Your task to perform on an android device: move an email to a new category in the gmail app Image 0: 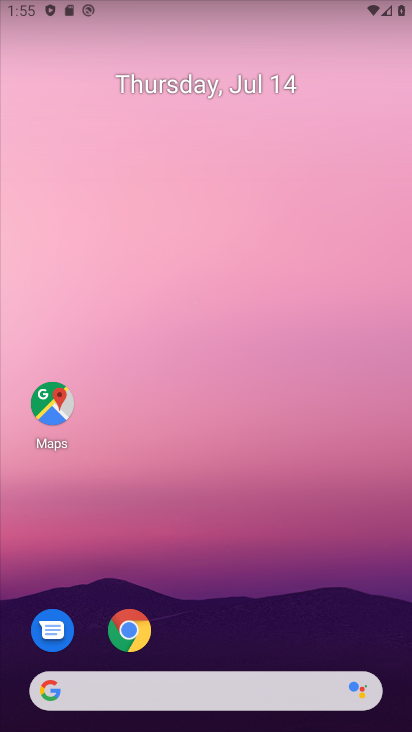
Step 0: press home button
Your task to perform on an android device: move an email to a new category in the gmail app Image 1: 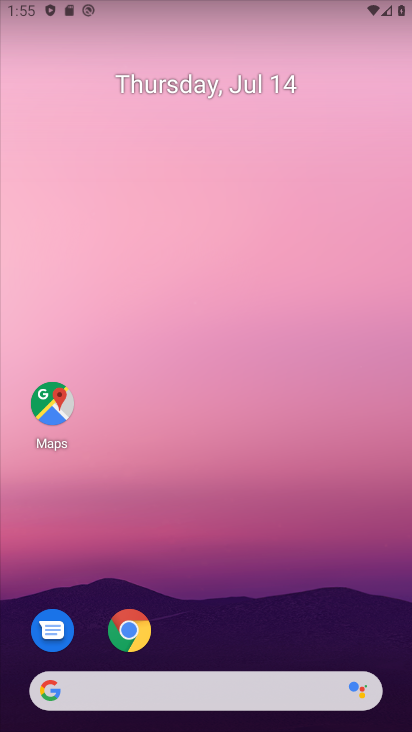
Step 1: drag from (212, 645) to (246, 67)
Your task to perform on an android device: move an email to a new category in the gmail app Image 2: 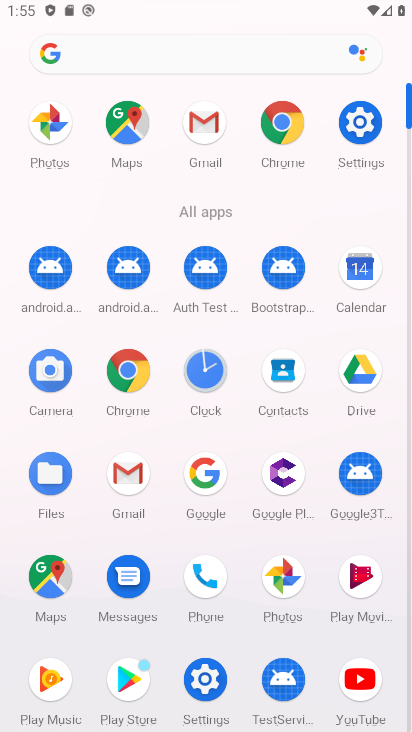
Step 2: click (125, 463)
Your task to perform on an android device: move an email to a new category in the gmail app Image 3: 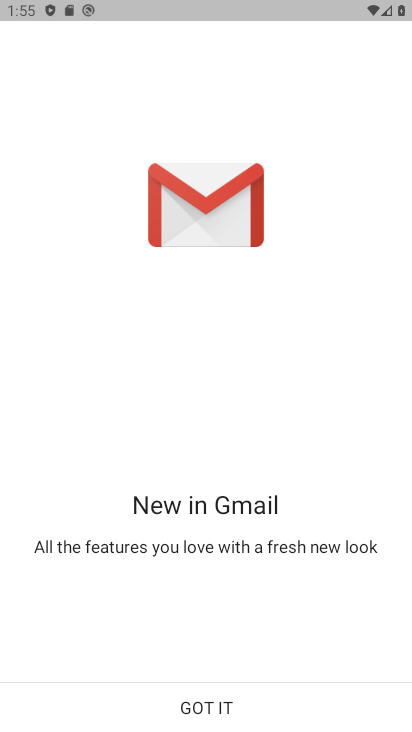
Step 3: click (213, 713)
Your task to perform on an android device: move an email to a new category in the gmail app Image 4: 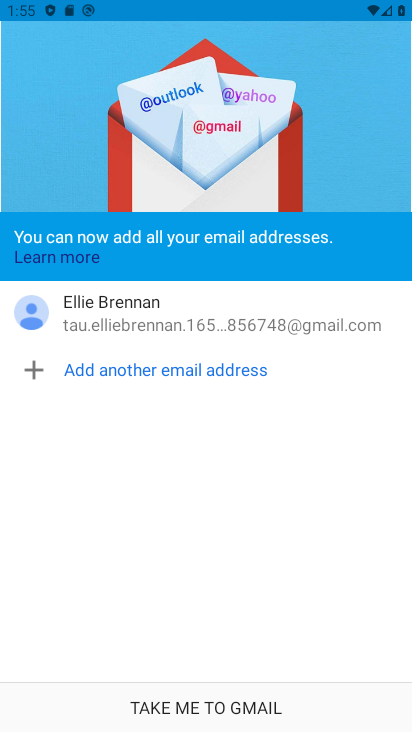
Step 4: click (213, 713)
Your task to perform on an android device: move an email to a new category in the gmail app Image 5: 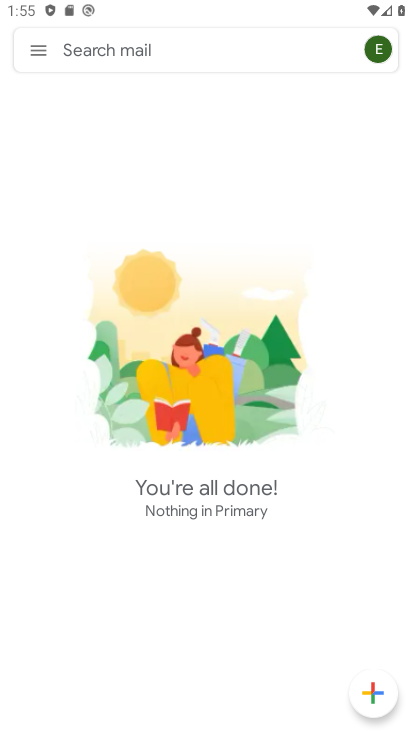
Step 5: task complete